Your task to perform on an android device: Turn on the flashlight Image 0: 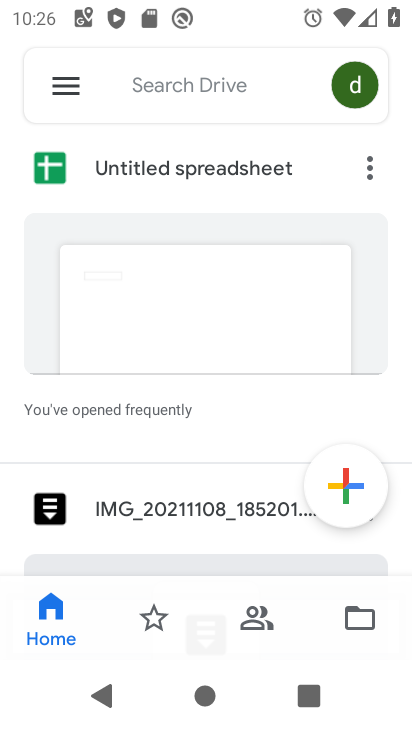
Step 0: press home button
Your task to perform on an android device: Turn on the flashlight Image 1: 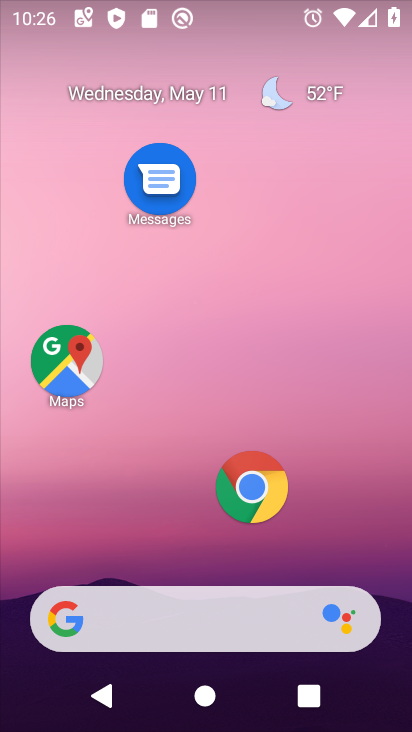
Step 1: drag from (168, 516) to (247, 136)
Your task to perform on an android device: Turn on the flashlight Image 2: 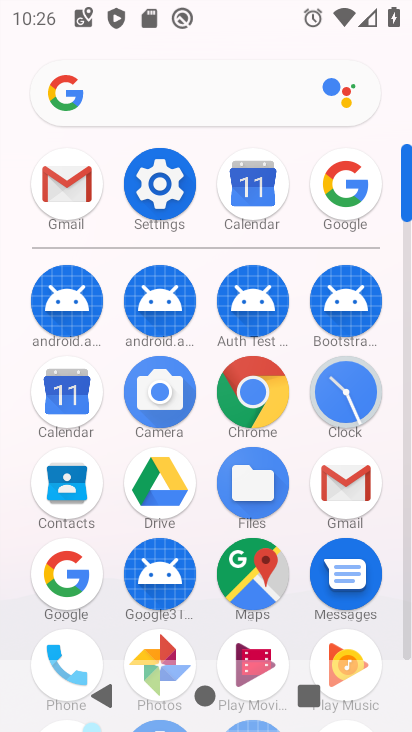
Step 2: click (178, 184)
Your task to perform on an android device: Turn on the flashlight Image 3: 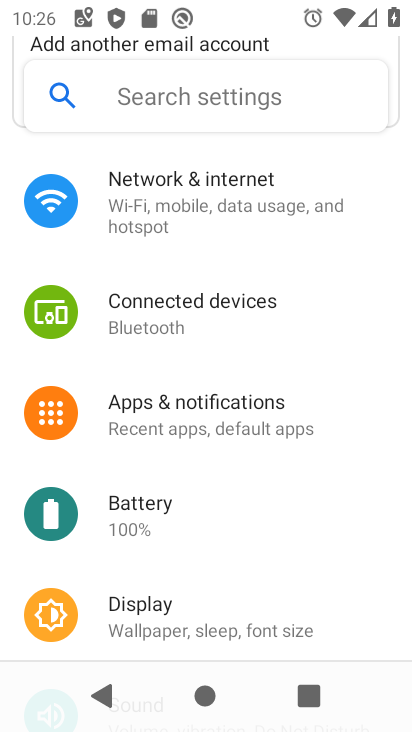
Step 3: click (193, 584)
Your task to perform on an android device: Turn on the flashlight Image 4: 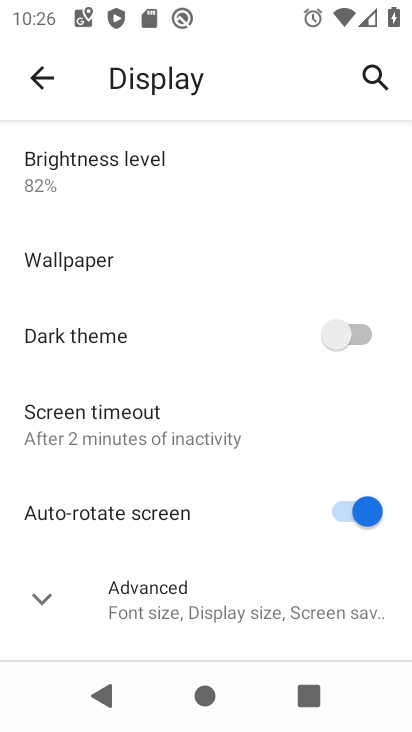
Step 4: task complete